Your task to perform on an android device: open app "Lyft - Rideshare, Bikes, Scooters & Transit" (install if not already installed) Image 0: 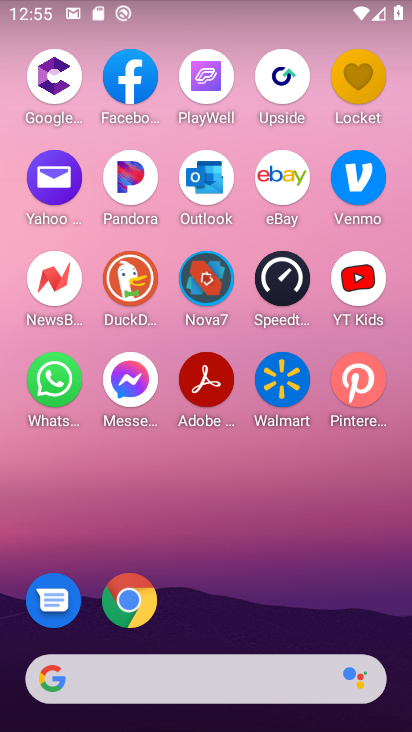
Step 0: drag from (252, 634) to (233, 10)
Your task to perform on an android device: open app "Lyft - Rideshare, Bikes, Scooters & Transit" (install if not already installed) Image 1: 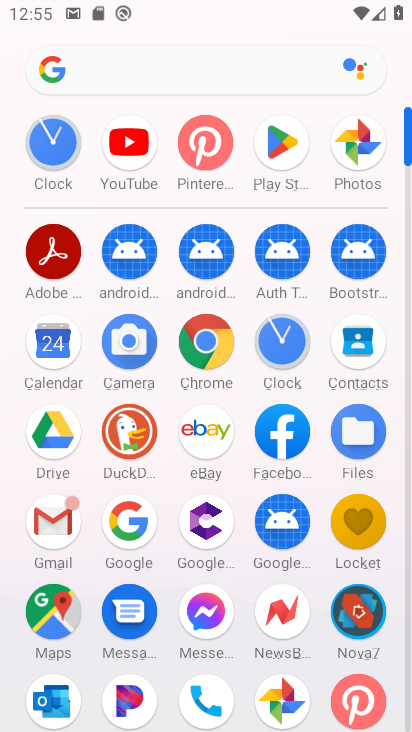
Step 1: click (281, 183)
Your task to perform on an android device: open app "Lyft - Rideshare, Bikes, Scooters & Transit" (install if not already installed) Image 2: 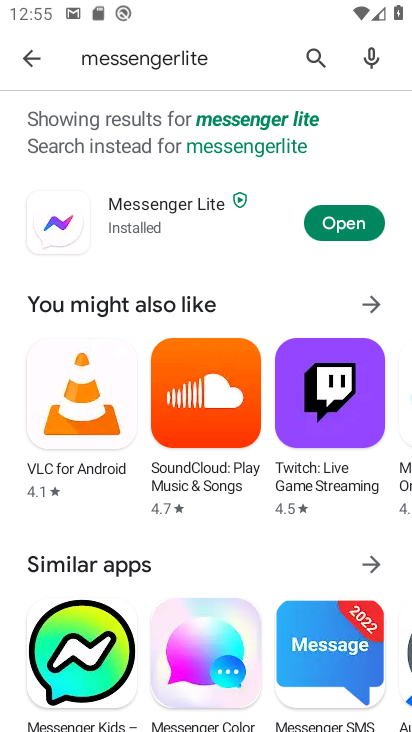
Step 2: click (302, 63)
Your task to perform on an android device: open app "Lyft - Rideshare, Bikes, Scooters & Transit" (install if not already installed) Image 3: 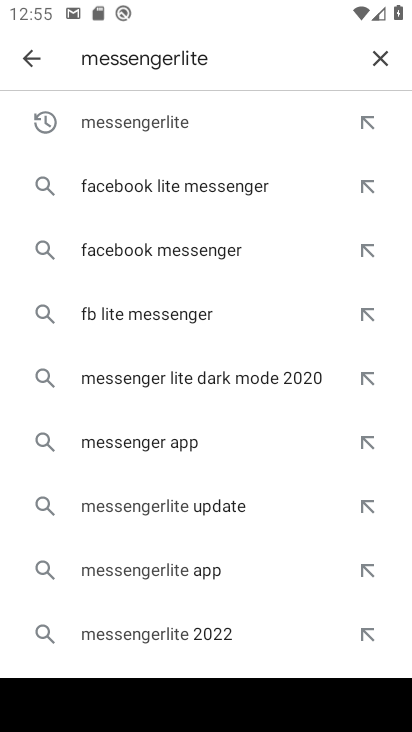
Step 3: click (383, 63)
Your task to perform on an android device: open app "Lyft - Rideshare, Bikes, Scooters & Transit" (install if not already installed) Image 4: 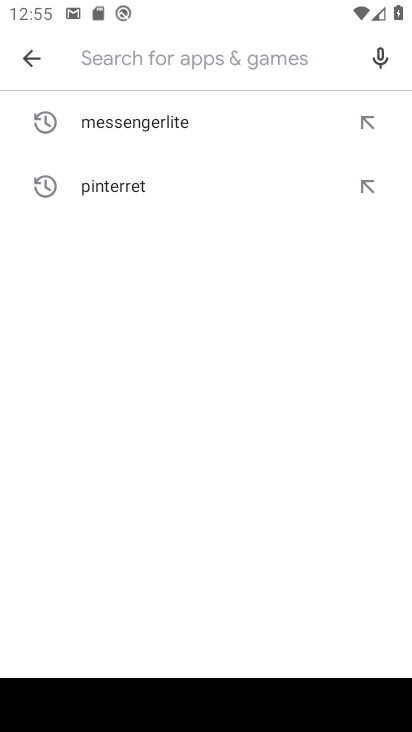
Step 4: type "lyst"
Your task to perform on an android device: open app "Lyft - Rideshare, Bikes, Scooters & Transit" (install if not already installed) Image 5: 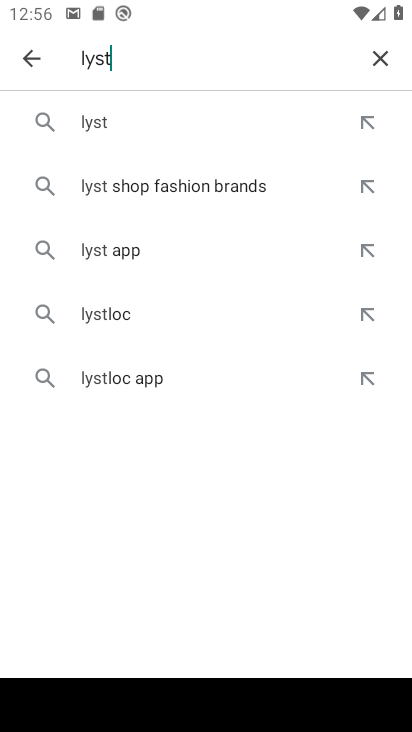
Step 5: click (210, 122)
Your task to perform on an android device: open app "Lyft - Rideshare, Bikes, Scooters & Transit" (install if not already installed) Image 6: 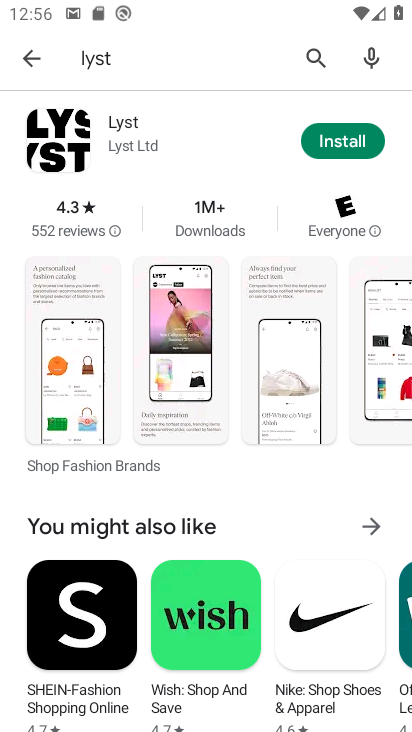
Step 6: click (332, 136)
Your task to perform on an android device: open app "Lyft - Rideshare, Bikes, Scooters & Transit" (install if not already installed) Image 7: 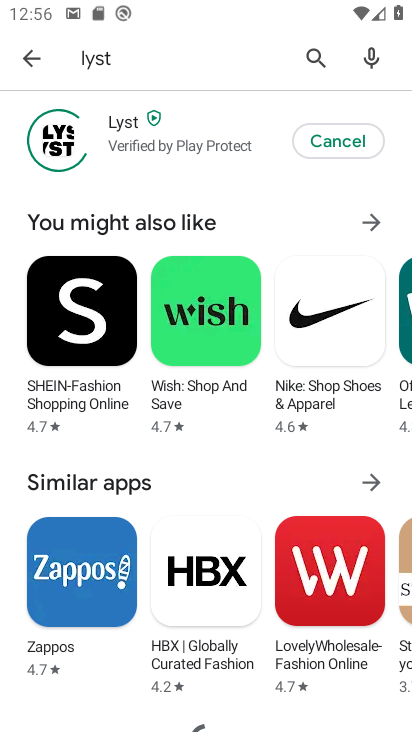
Step 7: task complete